Your task to perform on an android device: When is my next meeting? Image 0: 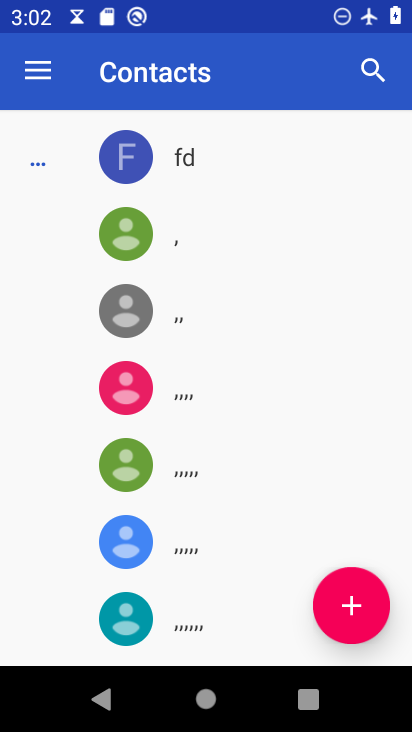
Step 0: press home button
Your task to perform on an android device: When is my next meeting? Image 1: 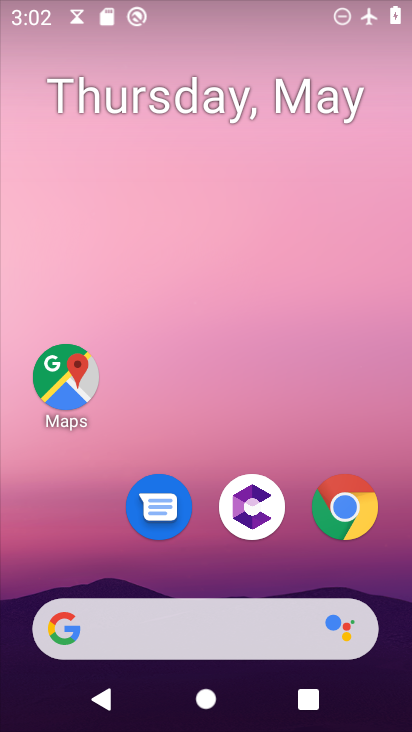
Step 1: drag from (277, 424) to (242, 177)
Your task to perform on an android device: When is my next meeting? Image 2: 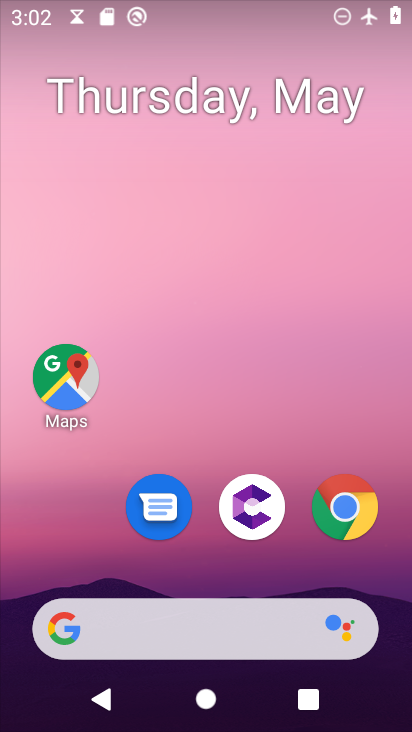
Step 2: drag from (292, 388) to (130, 4)
Your task to perform on an android device: When is my next meeting? Image 3: 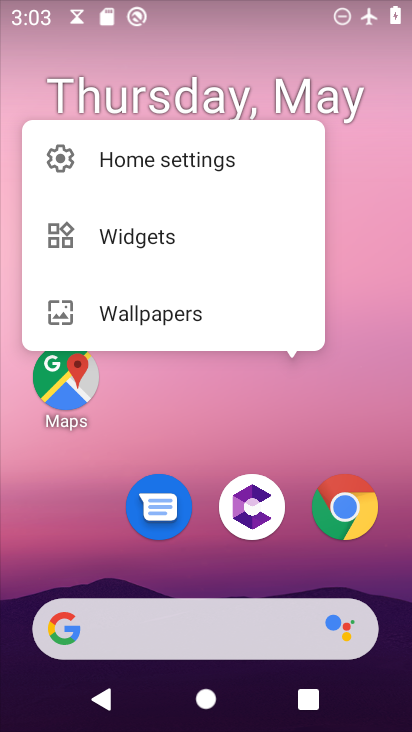
Step 3: drag from (369, 429) to (403, 0)
Your task to perform on an android device: When is my next meeting? Image 4: 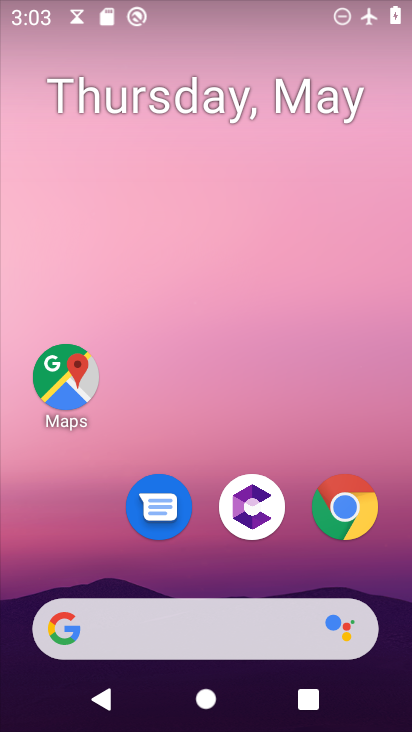
Step 4: drag from (227, 413) to (318, 0)
Your task to perform on an android device: When is my next meeting? Image 5: 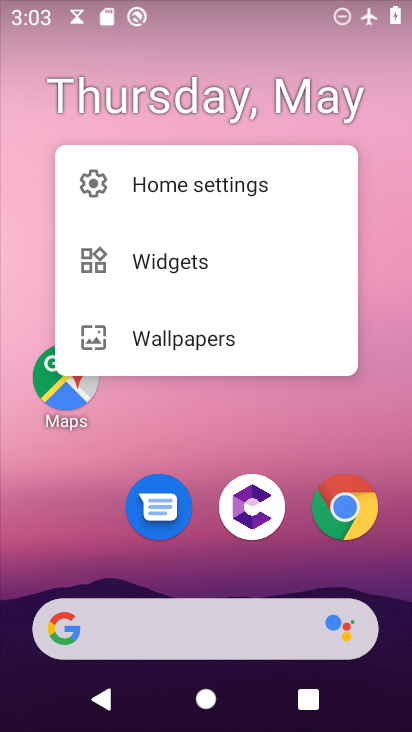
Step 5: click (365, 432)
Your task to perform on an android device: When is my next meeting? Image 6: 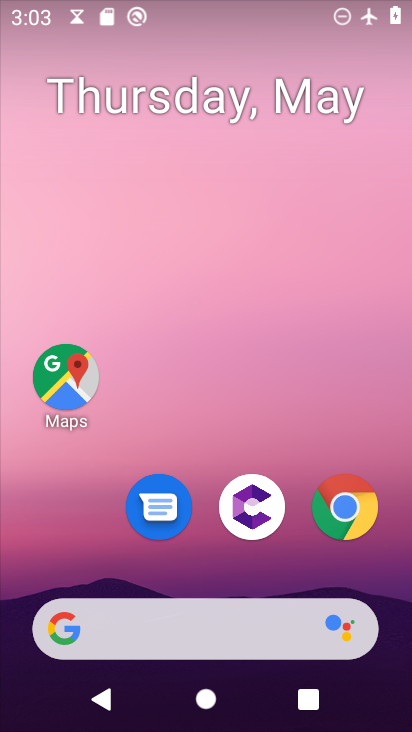
Step 6: drag from (222, 460) to (228, 22)
Your task to perform on an android device: When is my next meeting? Image 7: 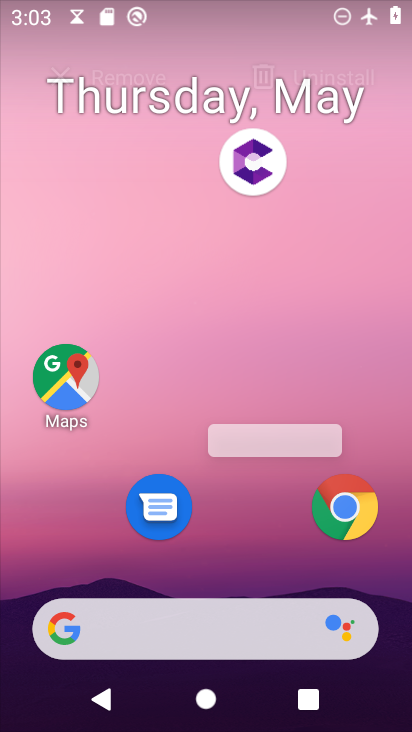
Step 7: click (287, 273)
Your task to perform on an android device: When is my next meeting? Image 8: 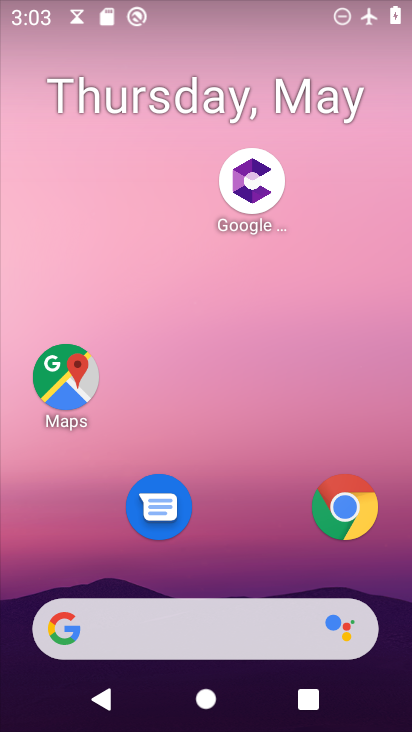
Step 8: drag from (233, 552) to (170, 101)
Your task to perform on an android device: When is my next meeting? Image 9: 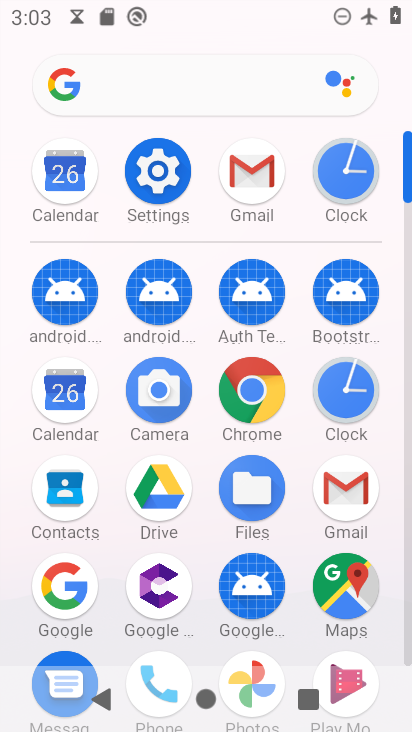
Step 9: click (58, 166)
Your task to perform on an android device: When is my next meeting? Image 10: 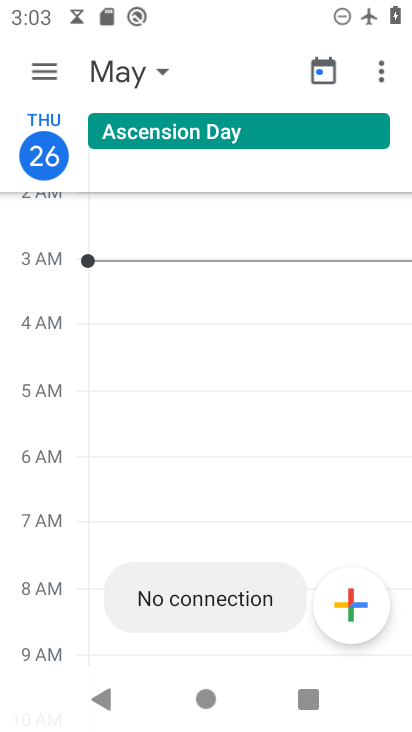
Step 10: click (40, 72)
Your task to perform on an android device: When is my next meeting? Image 11: 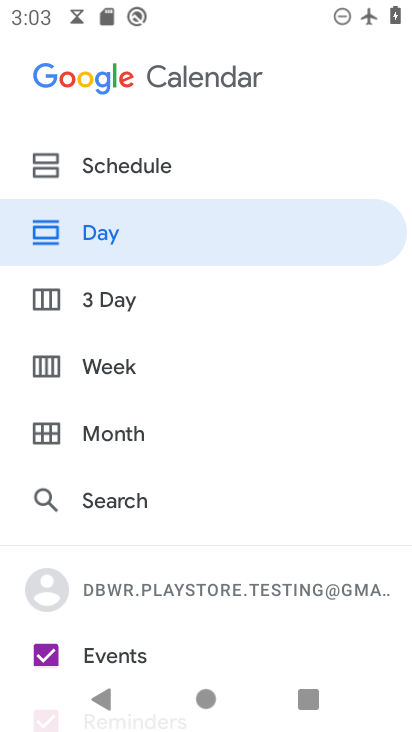
Step 11: drag from (176, 551) to (260, 184)
Your task to perform on an android device: When is my next meeting? Image 12: 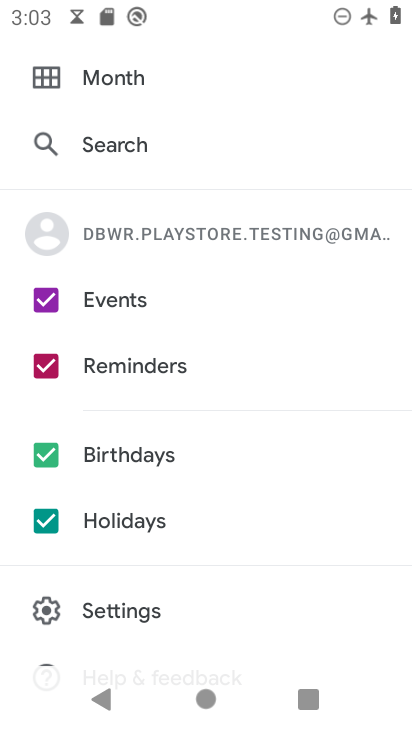
Step 12: drag from (261, 178) to (288, 699)
Your task to perform on an android device: When is my next meeting? Image 13: 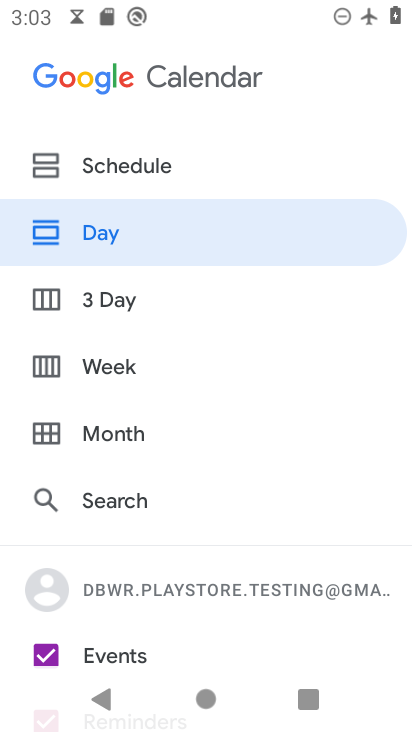
Step 13: click (125, 147)
Your task to perform on an android device: When is my next meeting? Image 14: 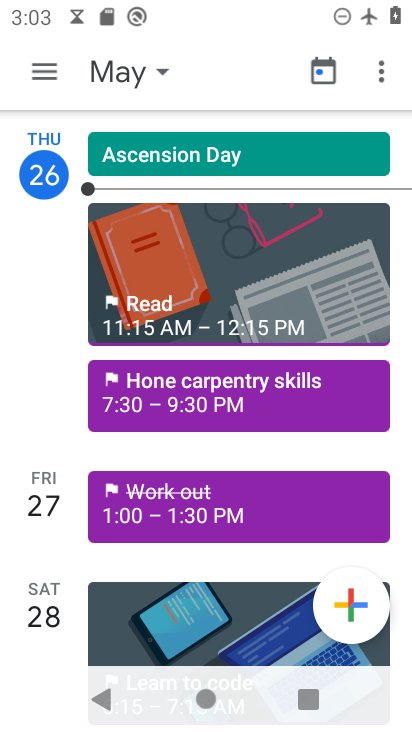
Step 14: task complete